Your task to perform on an android device: Set the phone to "Do not disturb". Image 0: 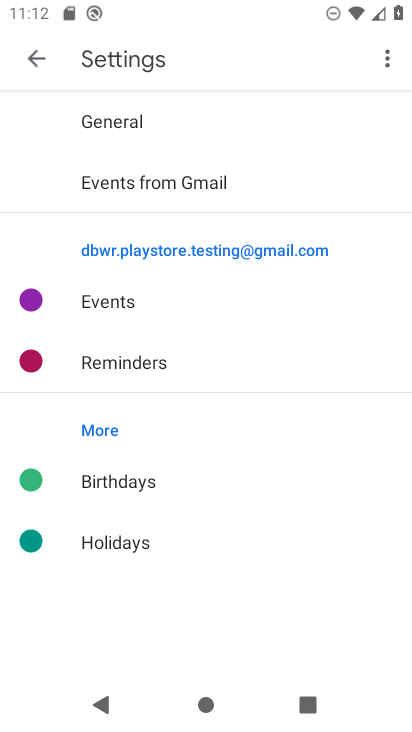
Step 0: drag from (269, 4) to (215, 544)
Your task to perform on an android device: Set the phone to "Do not disturb". Image 1: 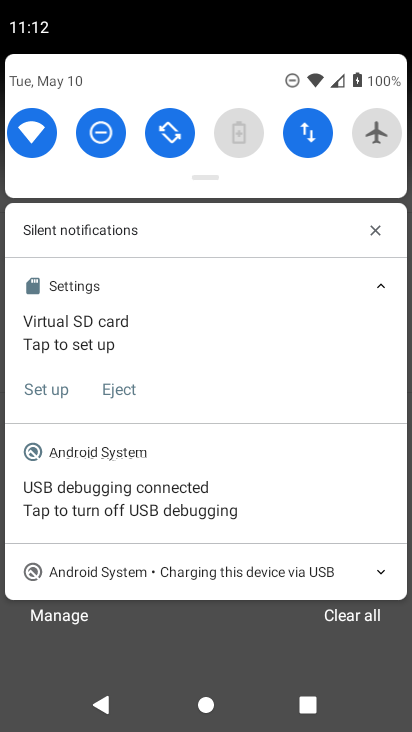
Step 1: task complete